Your task to perform on an android device: toggle wifi Image 0: 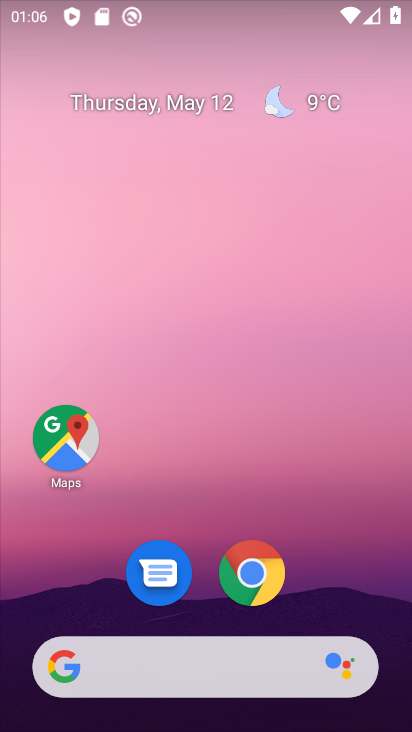
Step 0: drag from (325, 616) to (393, 2)
Your task to perform on an android device: toggle wifi Image 1: 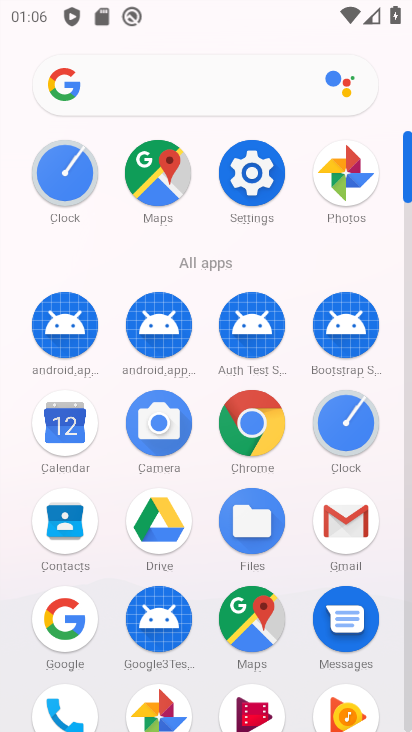
Step 1: click (264, 168)
Your task to perform on an android device: toggle wifi Image 2: 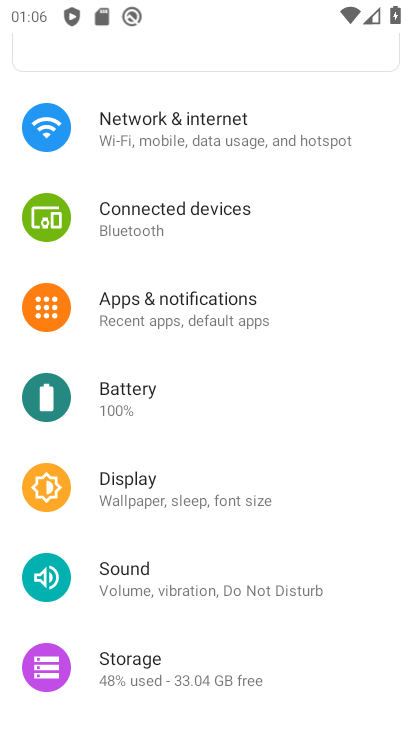
Step 2: click (202, 131)
Your task to perform on an android device: toggle wifi Image 3: 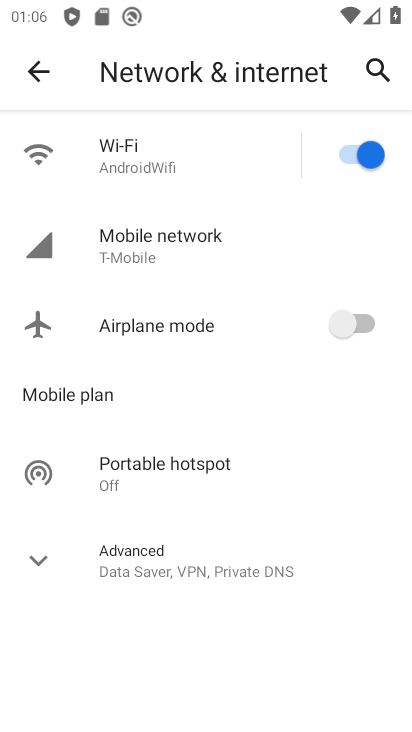
Step 3: click (379, 164)
Your task to perform on an android device: toggle wifi Image 4: 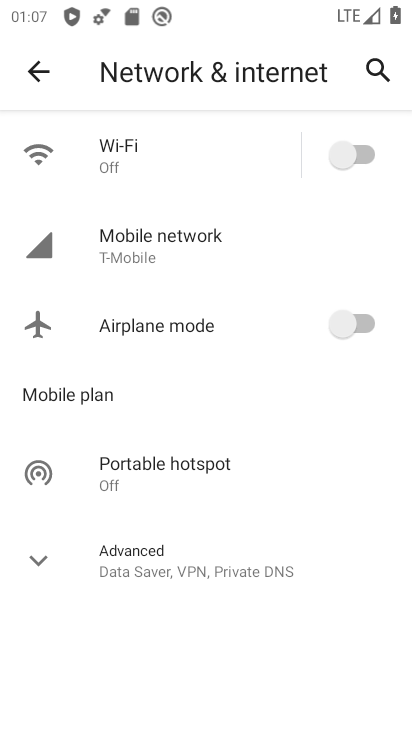
Step 4: task complete